Your task to perform on an android device: toggle notification dots Image 0: 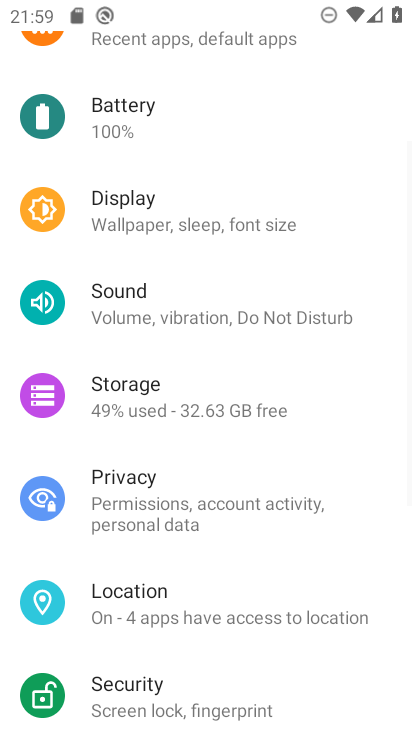
Step 0: press home button
Your task to perform on an android device: toggle notification dots Image 1: 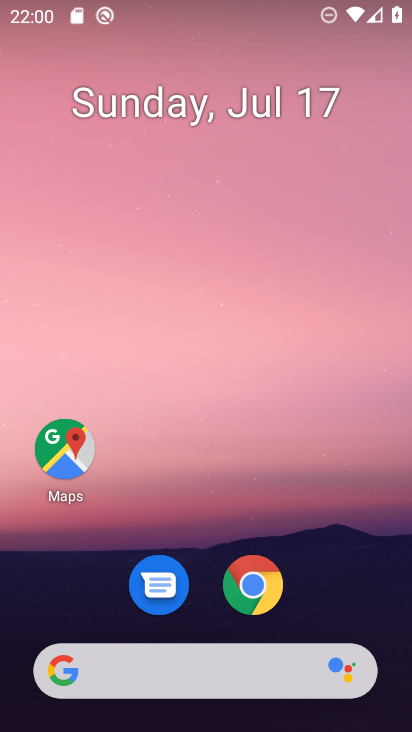
Step 1: drag from (188, 657) to (285, 130)
Your task to perform on an android device: toggle notification dots Image 2: 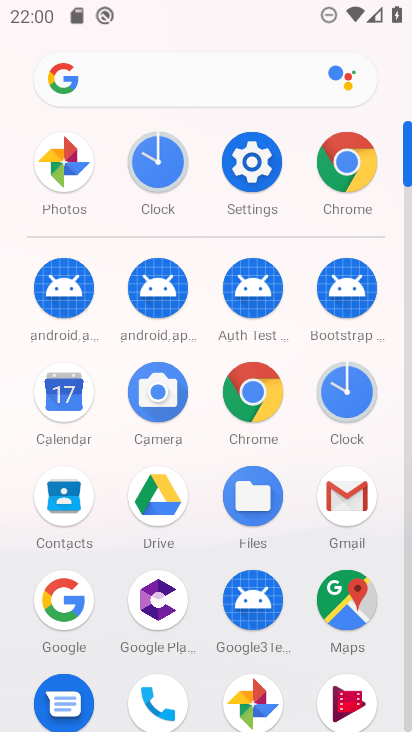
Step 2: click (260, 166)
Your task to perform on an android device: toggle notification dots Image 3: 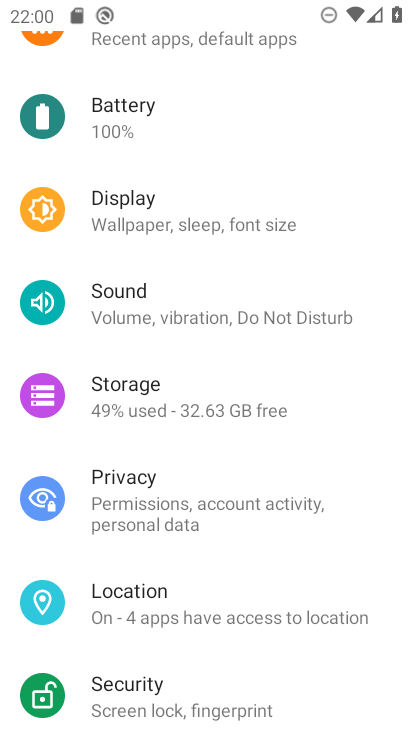
Step 3: drag from (306, 115) to (319, 619)
Your task to perform on an android device: toggle notification dots Image 4: 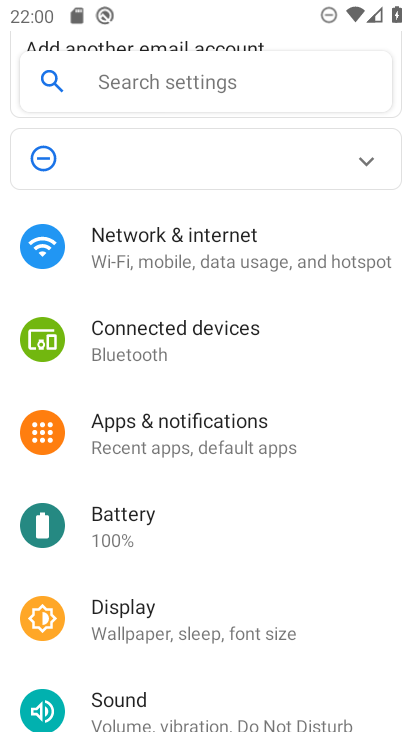
Step 4: click (215, 420)
Your task to perform on an android device: toggle notification dots Image 5: 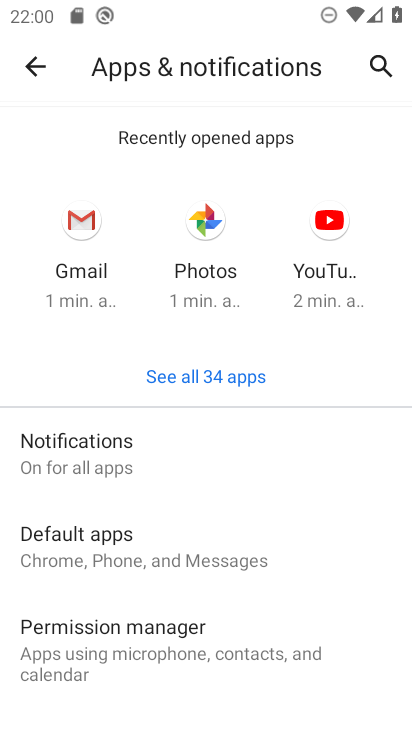
Step 5: click (108, 458)
Your task to perform on an android device: toggle notification dots Image 6: 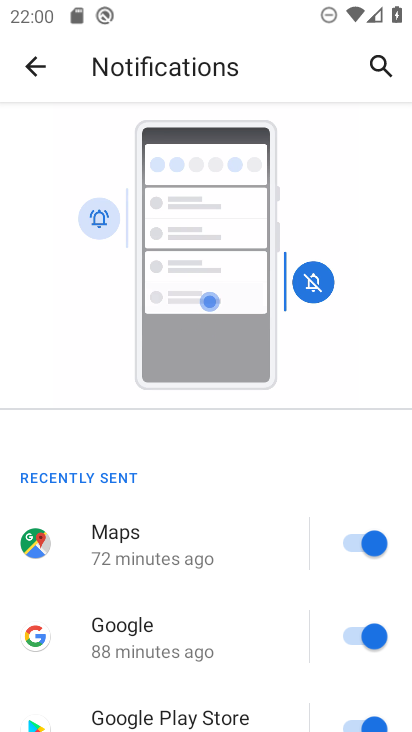
Step 6: drag from (221, 667) to (304, 87)
Your task to perform on an android device: toggle notification dots Image 7: 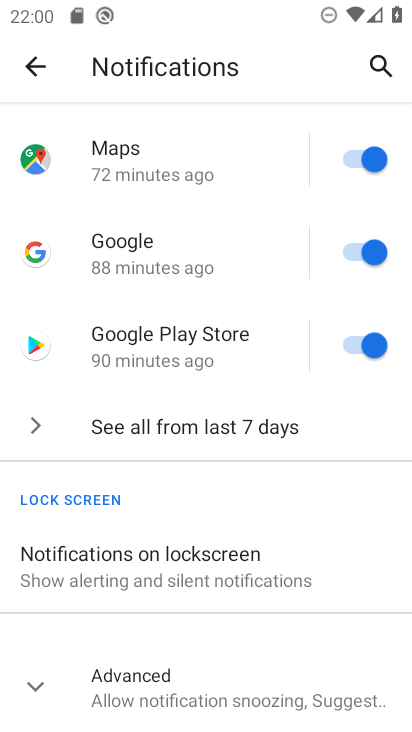
Step 7: click (165, 684)
Your task to perform on an android device: toggle notification dots Image 8: 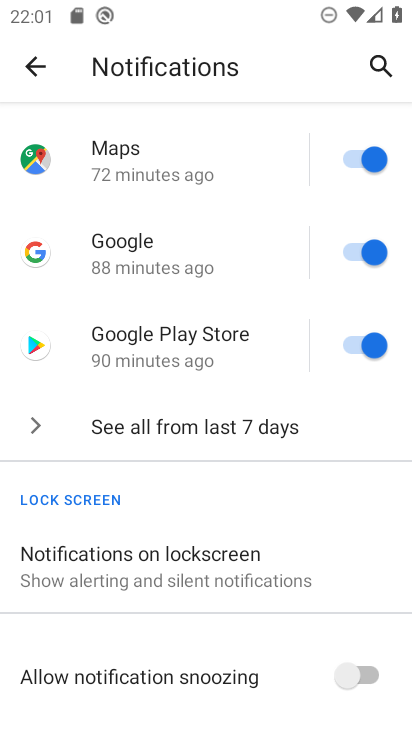
Step 8: drag from (199, 644) to (293, 225)
Your task to perform on an android device: toggle notification dots Image 9: 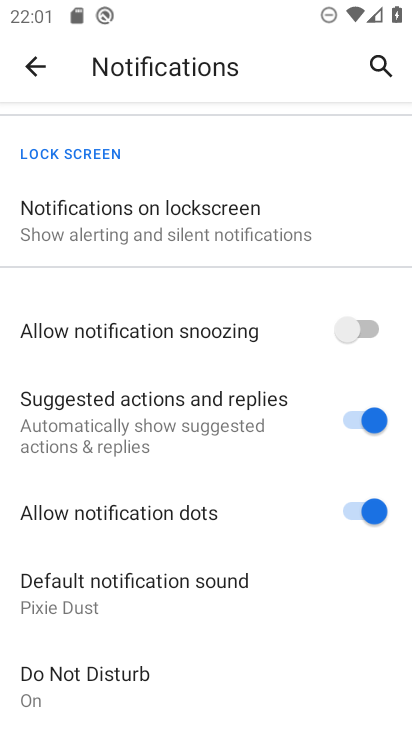
Step 9: click (362, 502)
Your task to perform on an android device: toggle notification dots Image 10: 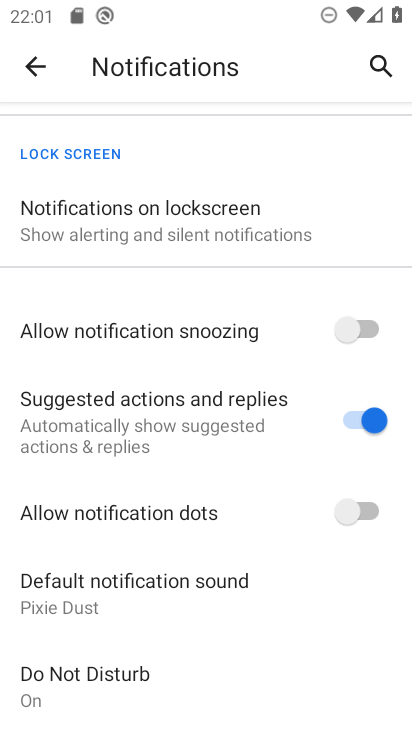
Step 10: task complete